Your task to perform on an android device: open app "Viber Messenger" (install if not already installed), go to login, and select forgot password Image 0: 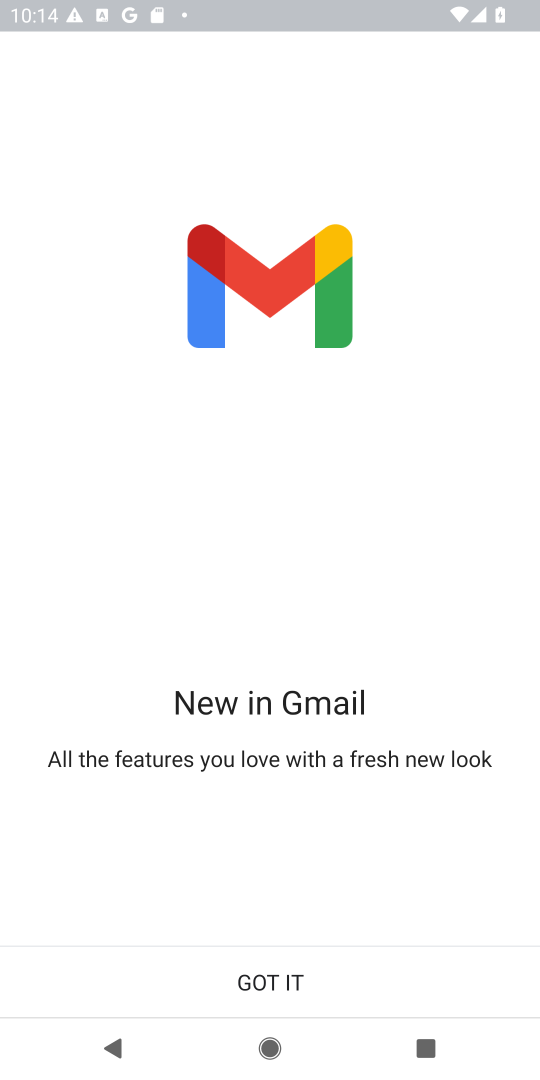
Step 0: press home button
Your task to perform on an android device: open app "Viber Messenger" (install if not already installed), go to login, and select forgot password Image 1: 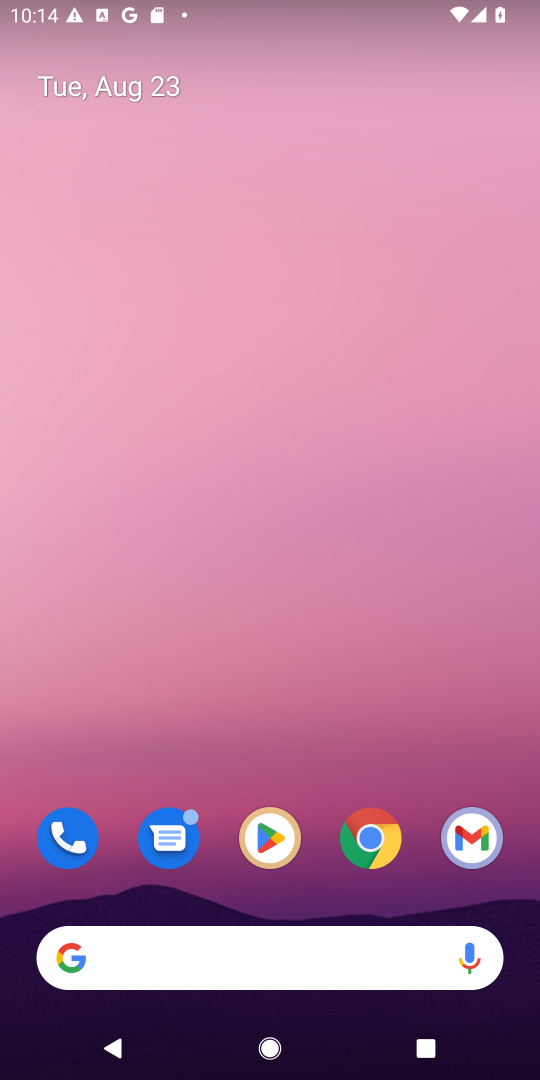
Step 1: click (262, 831)
Your task to perform on an android device: open app "Viber Messenger" (install if not already installed), go to login, and select forgot password Image 2: 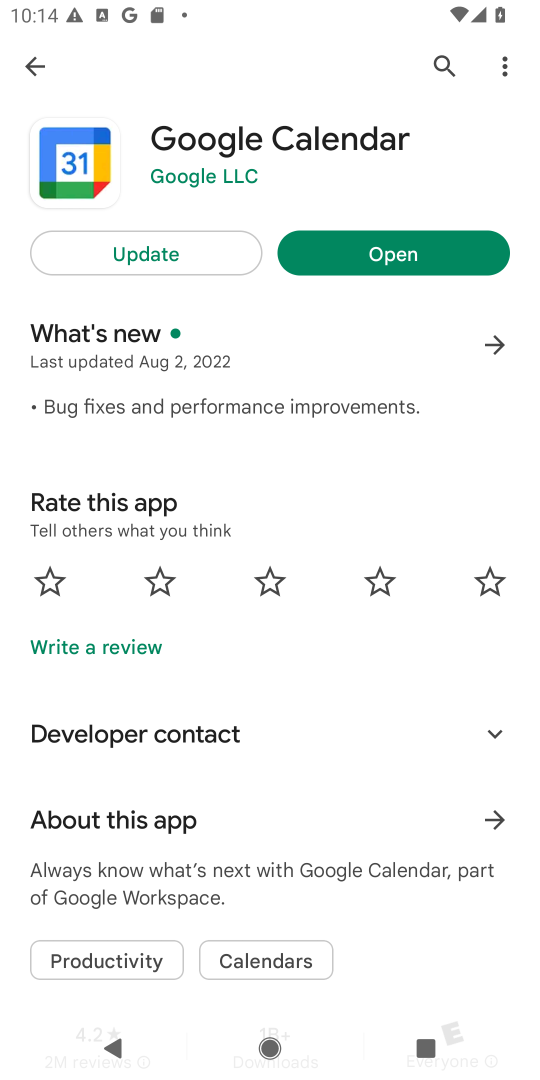
Step 2: click (436, 54)
Your task to perform on an android device: open app "Viber Messenger" (install if not already installed), go to login, and select forgot password Image 3: 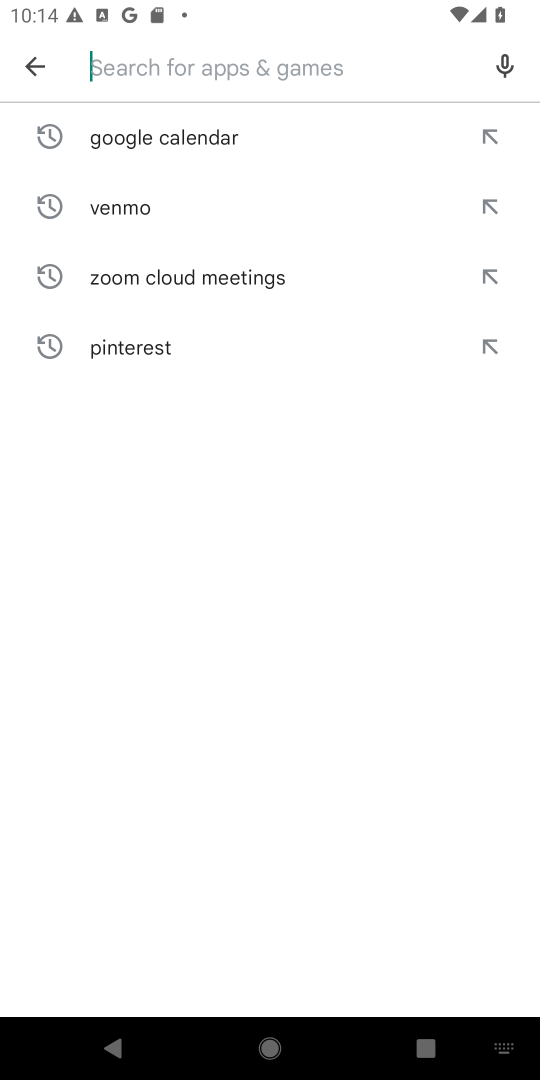
Step 3: type "Viber Messenger"
Your task to perform on an android device: open app "Viber Messenger" (install if not already installed), go to login, and select forgot password Image 4: 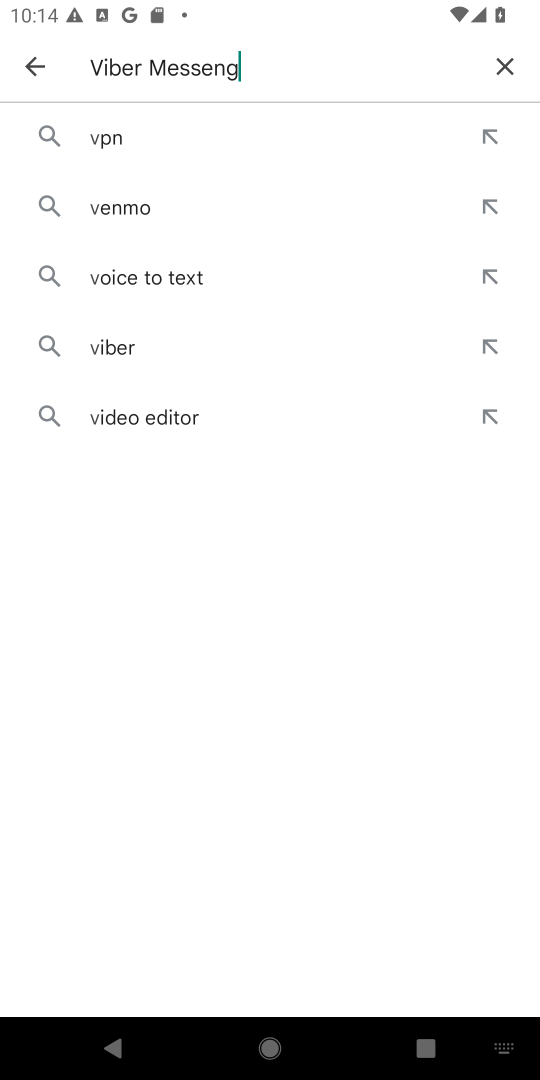
Step 4: type ""
Your task to perform on an android device: open app "Viber Messenger" (install if not already installed), go to login, and select forgot password Image 5: 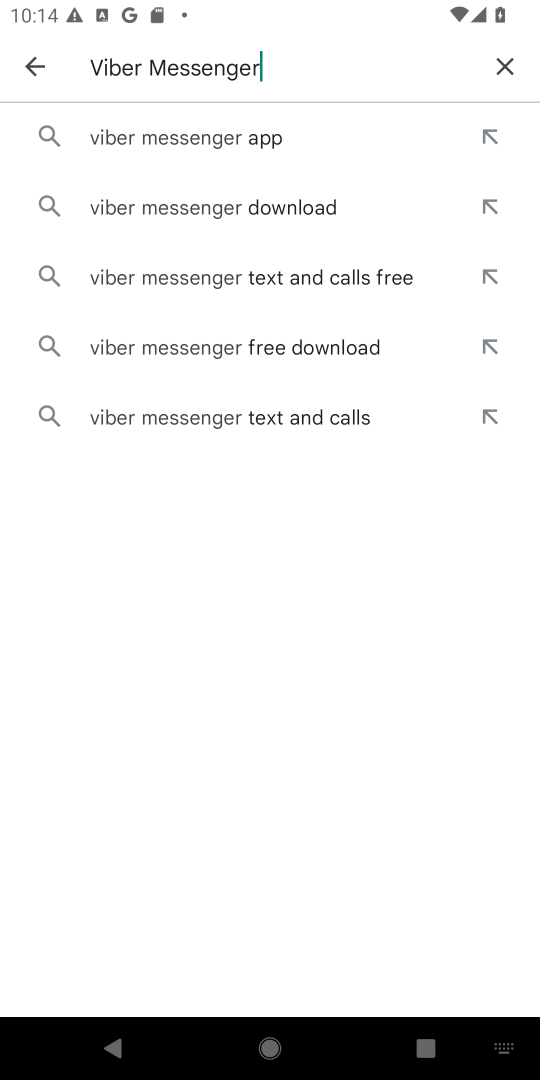
Step 5: click (225, 137)
Your task to perform on an android device: open app "Viber Messenger" (install if not already installed), go to login, and select forgot password Image 6: 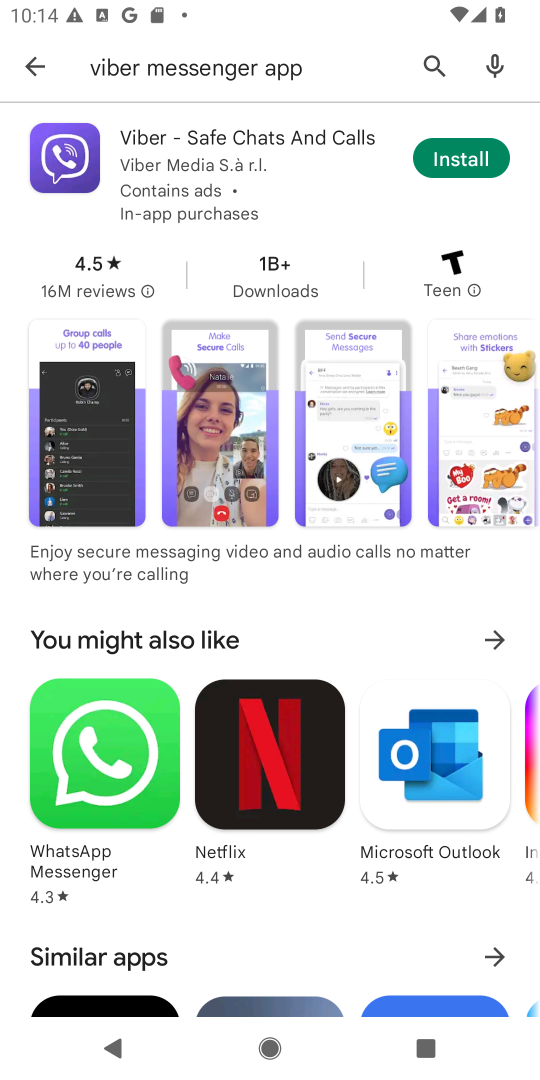
Step 6: click (472, 163)
Your task to perform on an android device: open app "Viber Messenger" (install if not already installed), go to login, and select forgot password Image 7: 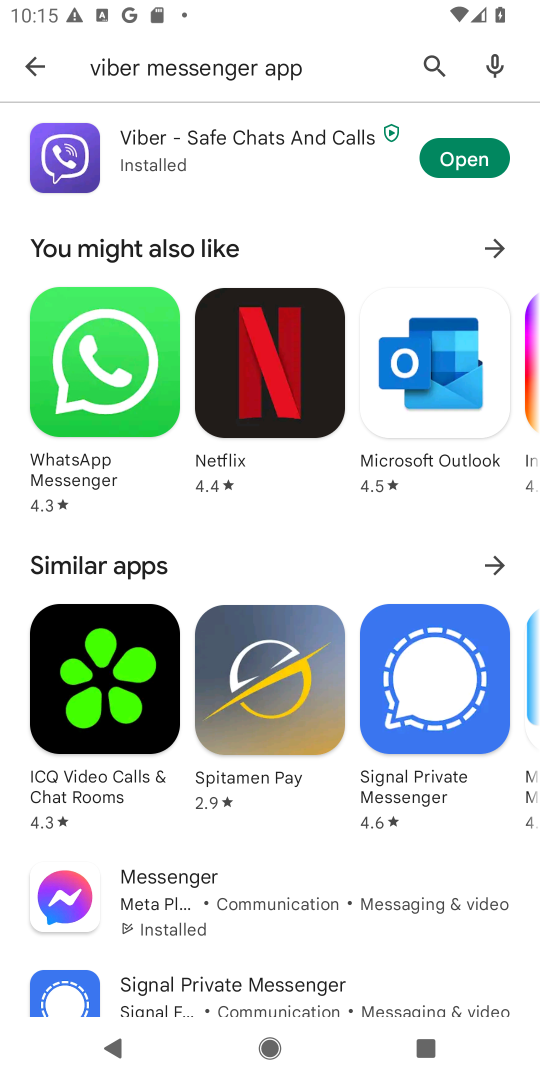
Step 7: click (474, 164)
Your task to perform on an android device: open app "Viber Messenger" (install if not already installed), go to login, and select forgot password Image 8: 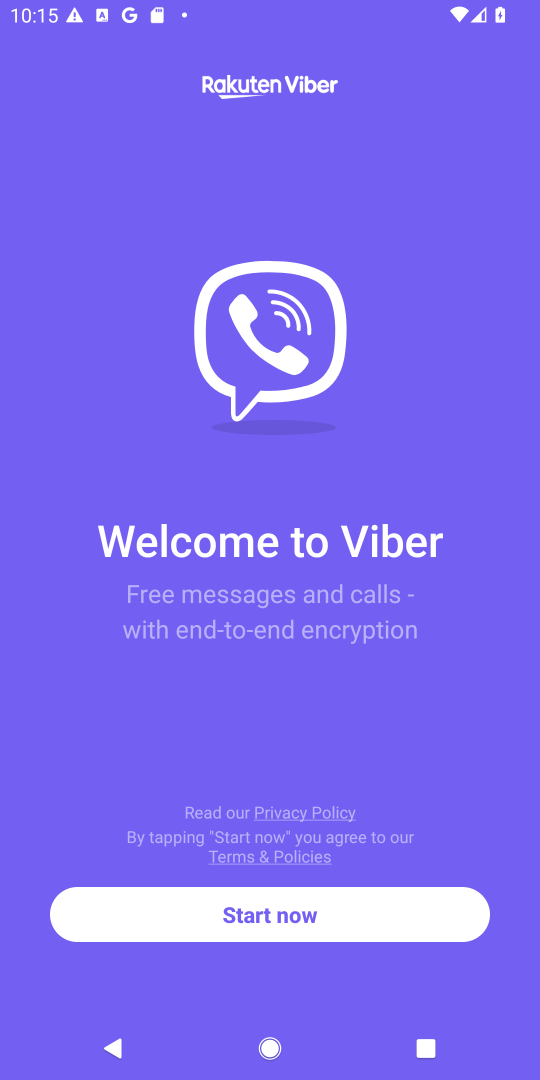
Step 8: task complete